Your task to perform on an android device: Check the settings for the Spotify app Image 0: 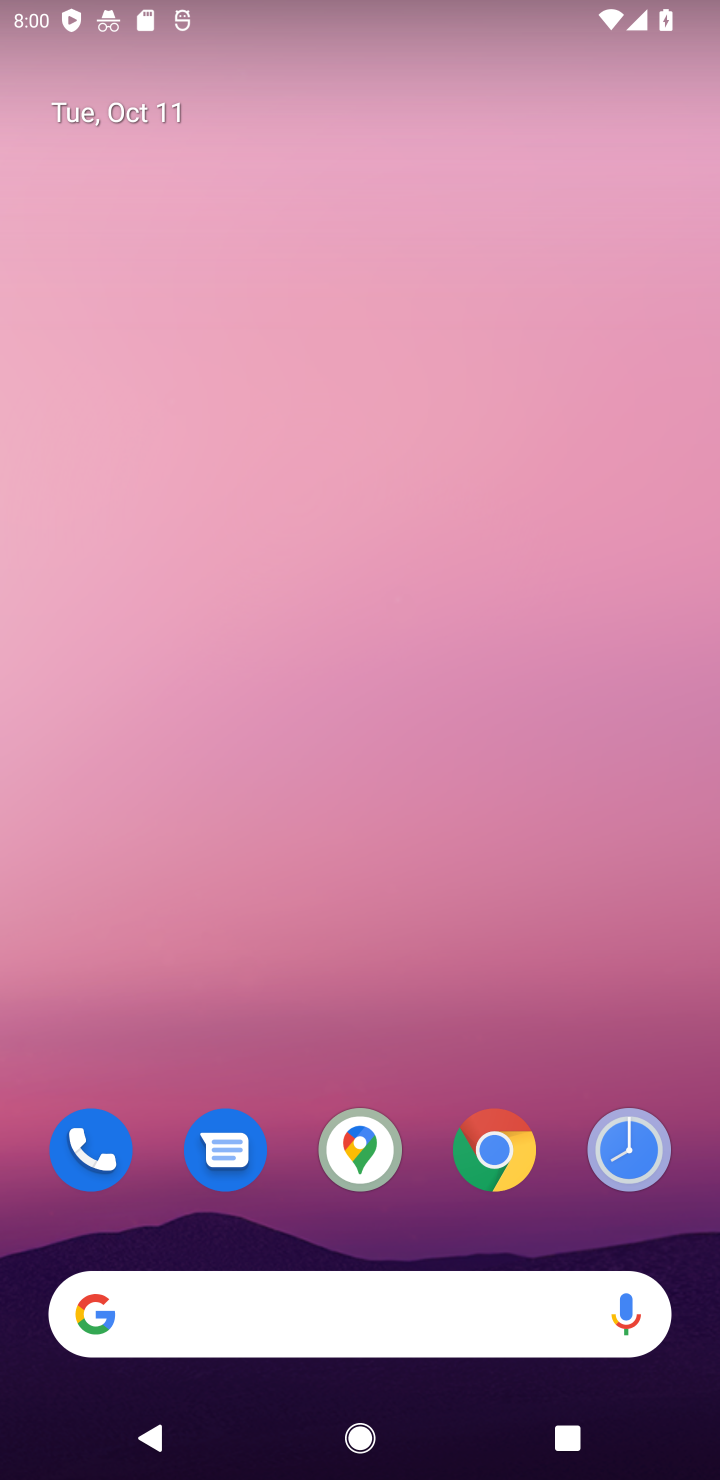
Step 0: drag from (395, 952) to (306, 30)
Your task to perform on an android device: Check the settings for the Spotify app Image 1: 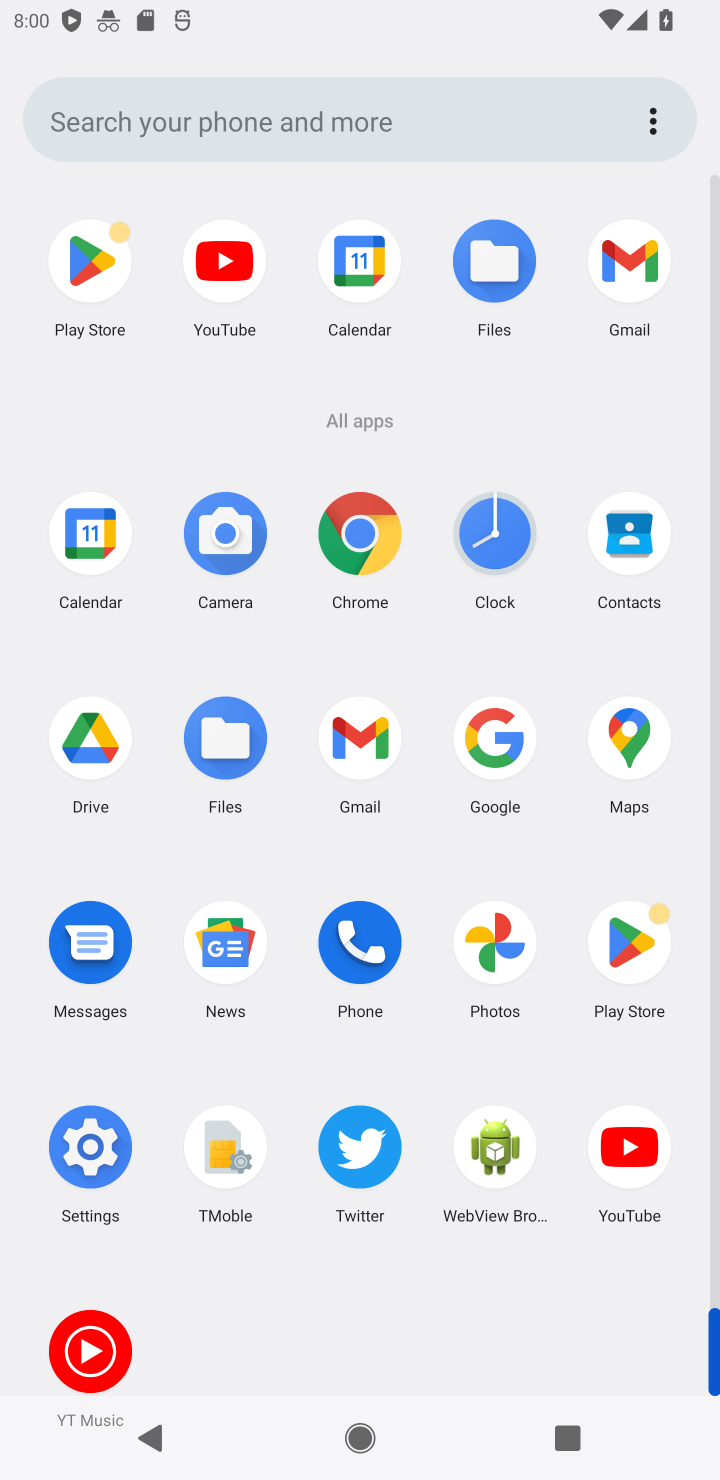
Step 1: task complete